Your task to perform on an android device: Go to accessibility settings Image 0: 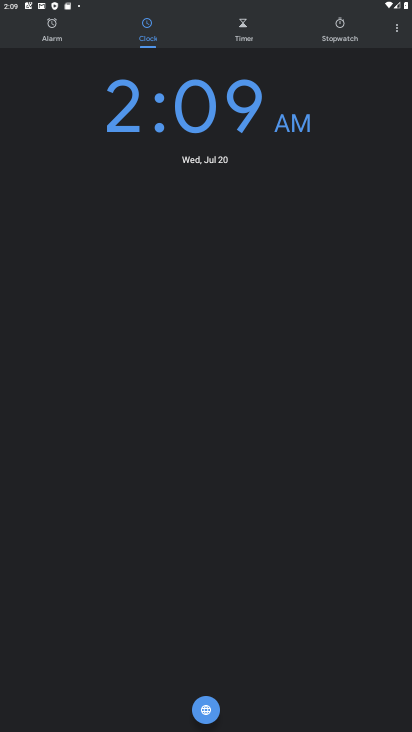
Step 0: press home button
Your task to perform on an android device: Go to accessibility settings Image 1: 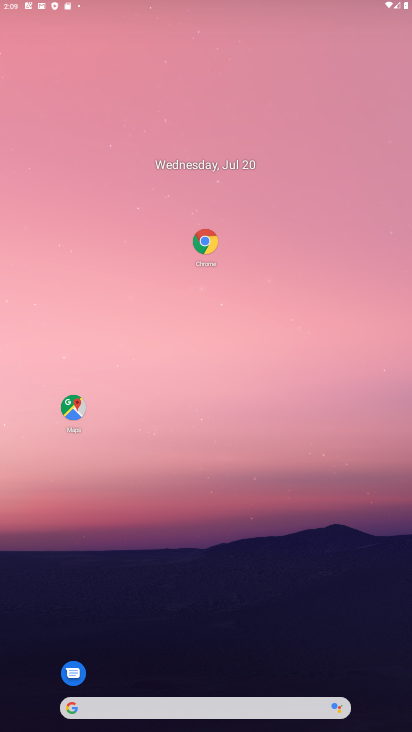
Step 1: drag from (235, 480) to (256, 73)
Your task to perform on an android device: Go to accessibility settings Image 2: 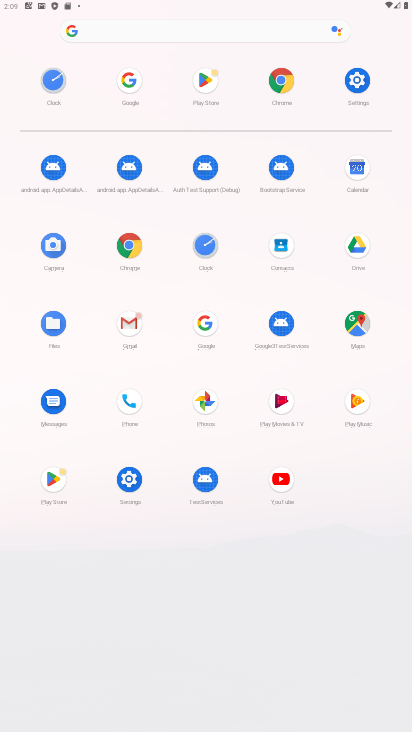
Step 2: click (356, 78)
Your task to perform on an android device: Go to accessibility settings Image 3: 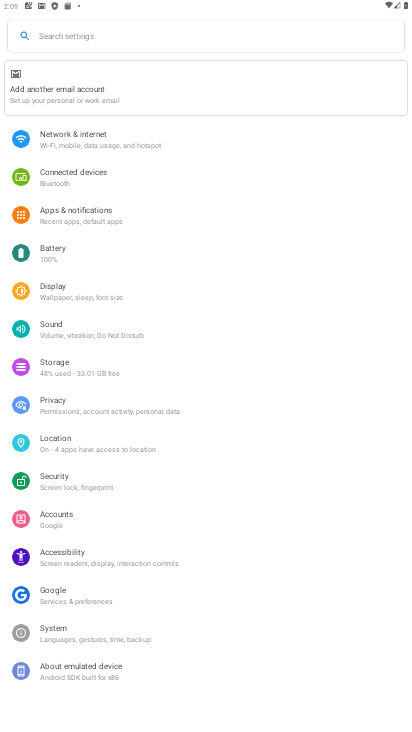
Step 3: click (68, 556)
Your task to perform on an android device: Go to accessibility settings Image 4: 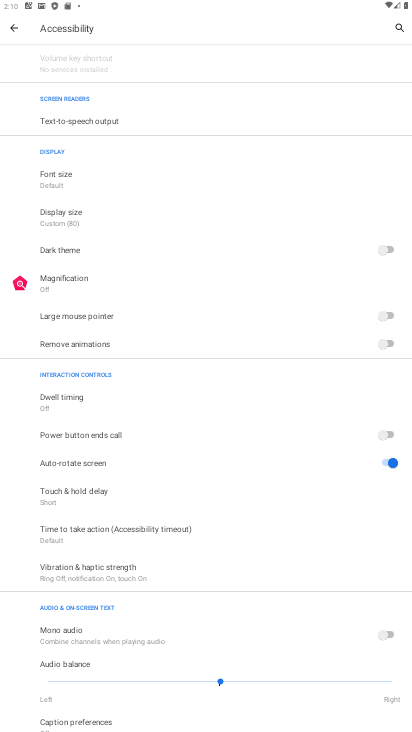
Step 4: task complete